Your task to perform on an android device: remove spam from my inbox in the gmail app Image 0: 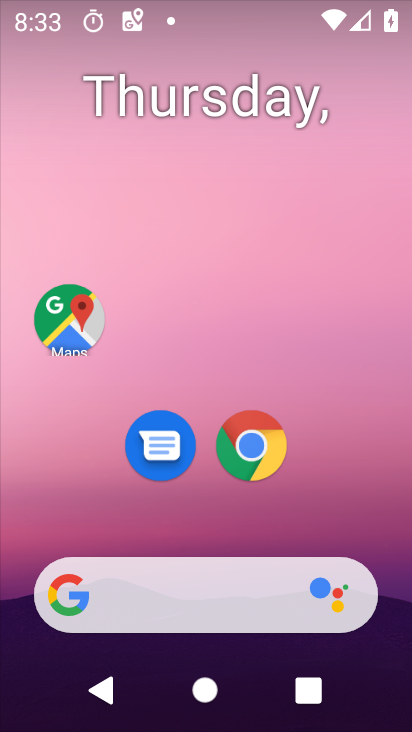
Step 0: drag from (85, 531) to (266, 156)
Your task to perform on an android device: remove spam from my inbox in the gmail app Image 1: 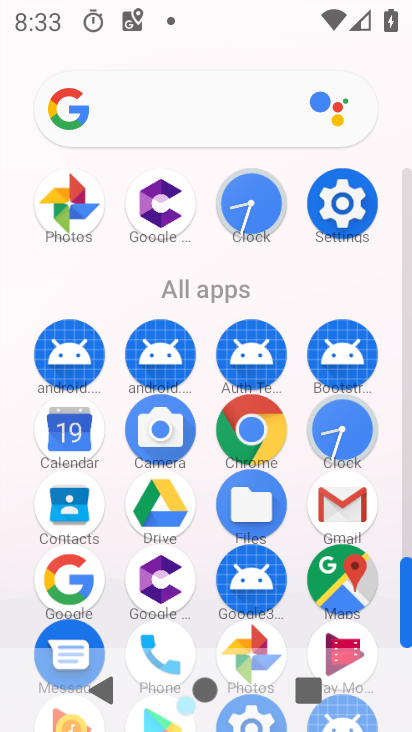
Step 1: click (351, 505)
Your task to perform on an android device: remove spam from my inbox in the gmail app Image 2: 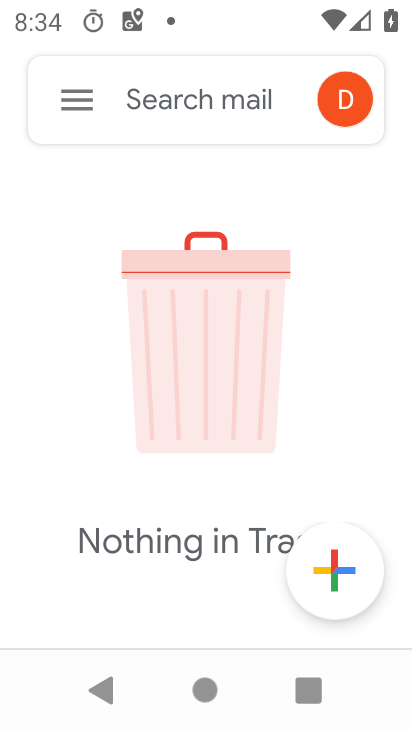
Step 2: click (68, 100)
Your task to perform on an android device: remove spam from my inbox in the gmail app Image 3: 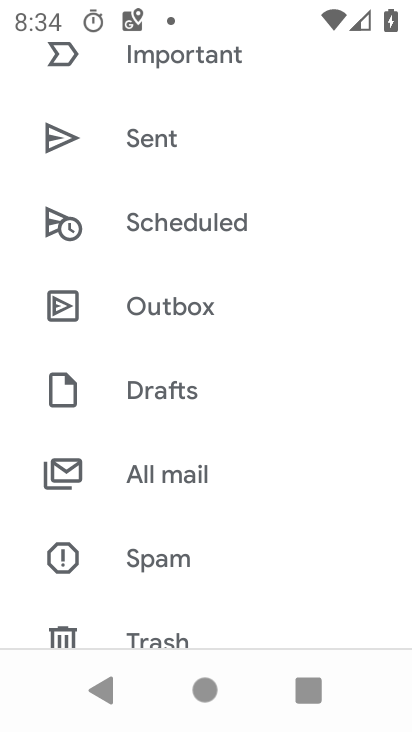
Step 3: click (142, 566)
Your task to perform on an android device: remove spam from my inbox in the gmail app Image 4: 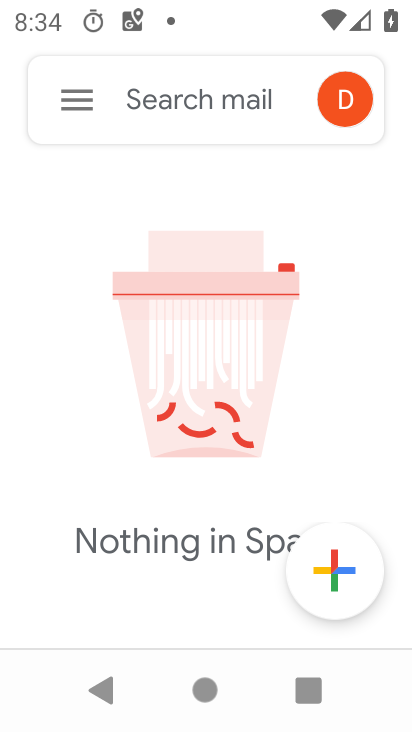
Step 4: task complete